Your task to perform on an android device: Go to battery settings Image 0: 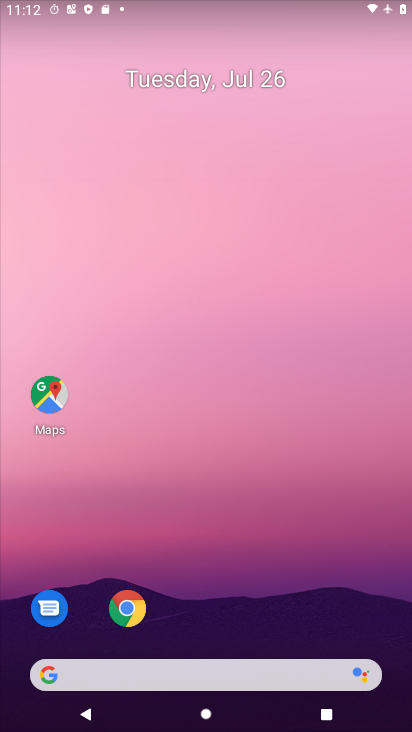
Step 0: drag from (199, 609) to (223, 149)
Your task to perform on an android device: Go to battery settings Image 1: 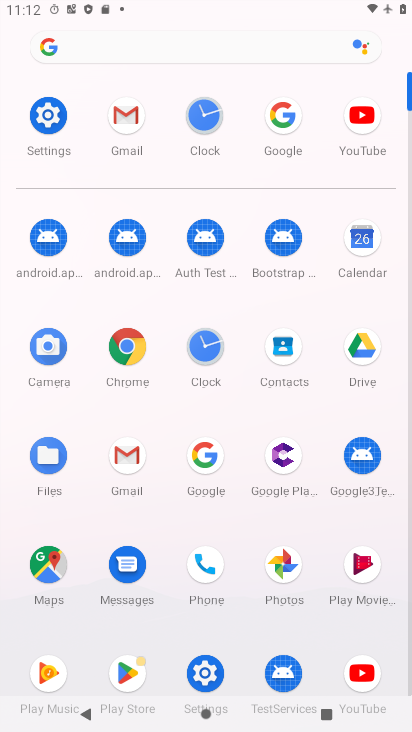
Step 1: click (52, 117)
Your task to perform on an android device: Go to battery settings Image 2: 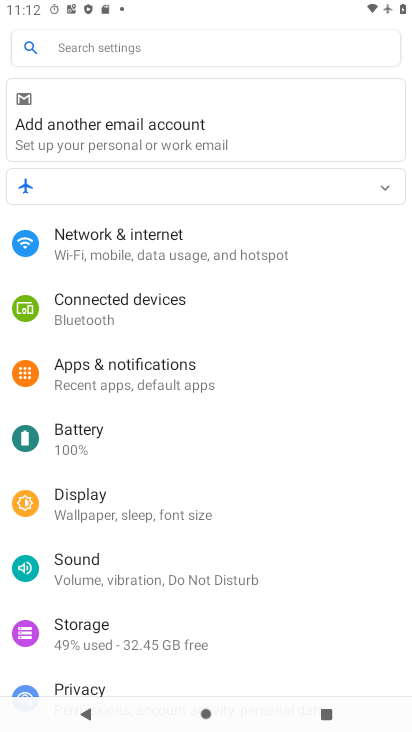
Step 2: click (84, 457)
Your task to perform on an android device: Go to battery settings Image 3: 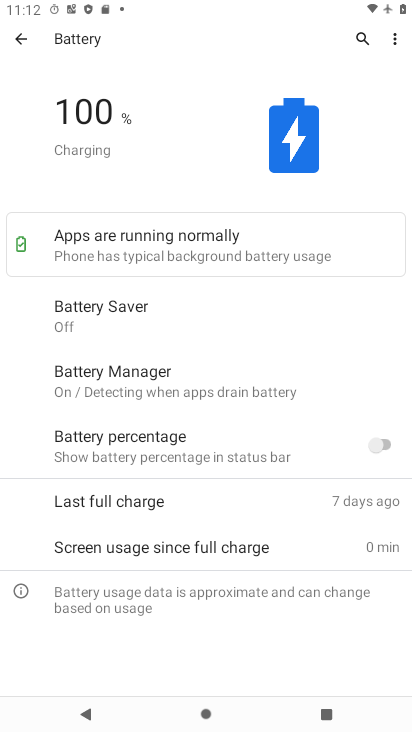
Step 3: task complete